Your task to perform on an android device: Show me popular videos on Youtube Image 0: 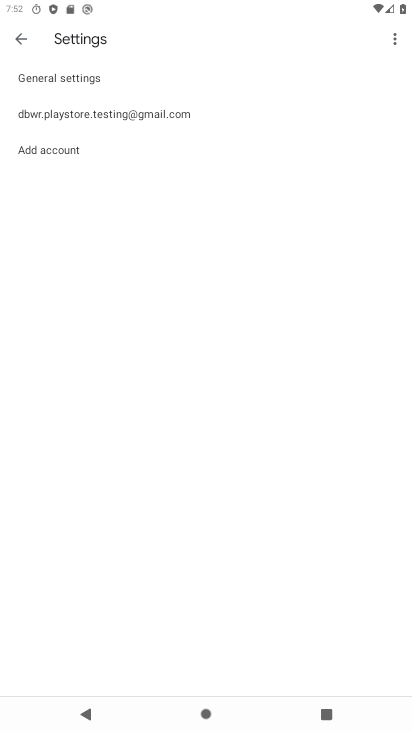
Step 0: press home button
Your task to perform on an android device: Show me popular videos on Youtube Image 1: 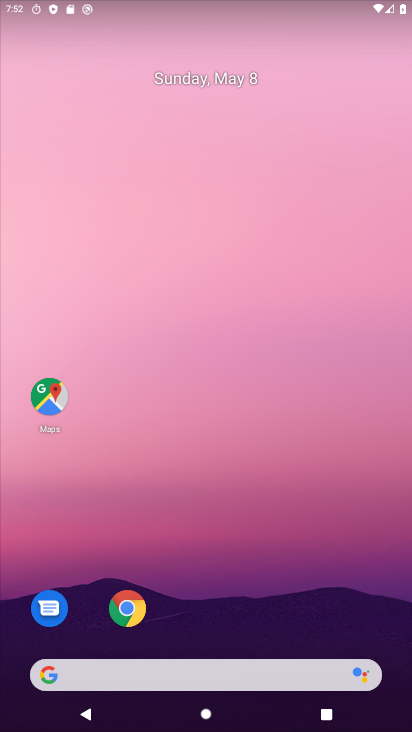
Step 1: drag from (318, 588) to (353, 131)
Your task to perform on an android device: Show me popular videos on Youtube Image 2: 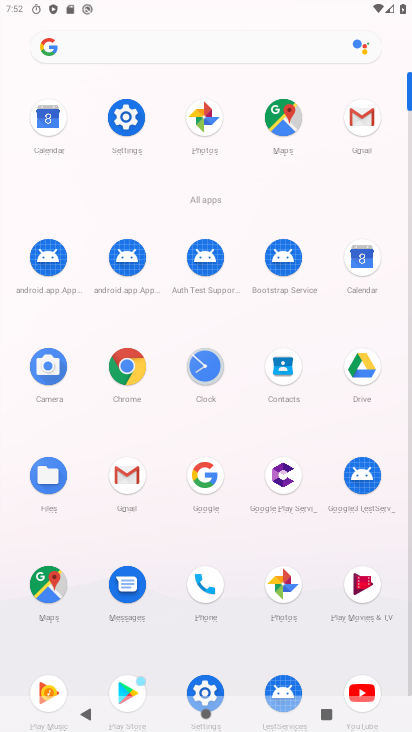
Step 2: click (363, 691)
Your task to perform on an android device: Show me popular videos on Youtube Image 3: 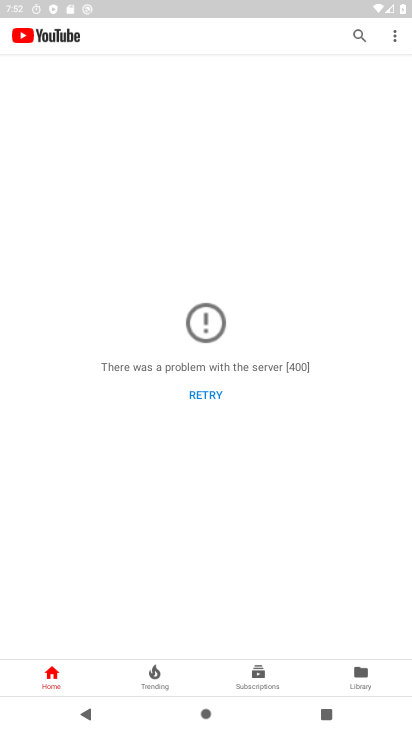
Step 3: drag from (353, 680) to (158, 683)
Your task to perform on an android device: Show me popular videos on Youtube Image 4: 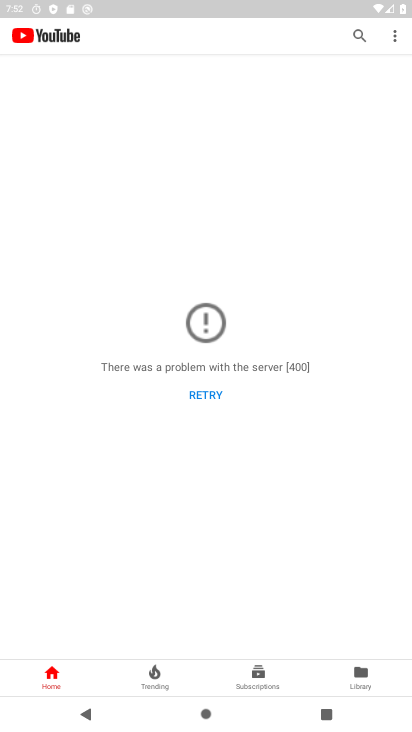
Step 4: click (158, 683)
Your task to perform on an android device: Show me popular videos on Youtube Image 5: 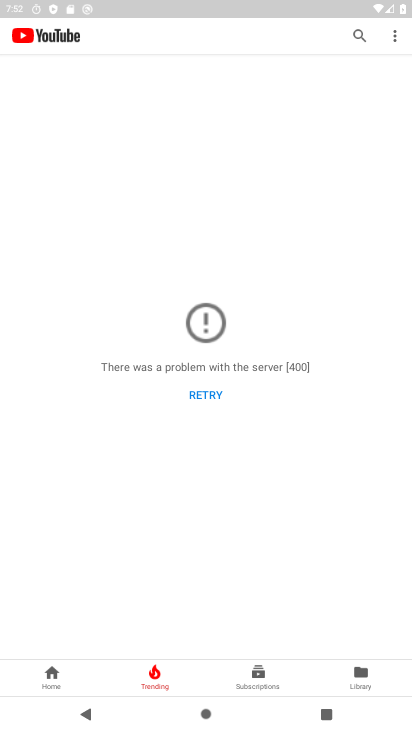
Step 5: click (158, 688)
Your task to perform on an android device: Show me popular videos on Youtube Image 6: 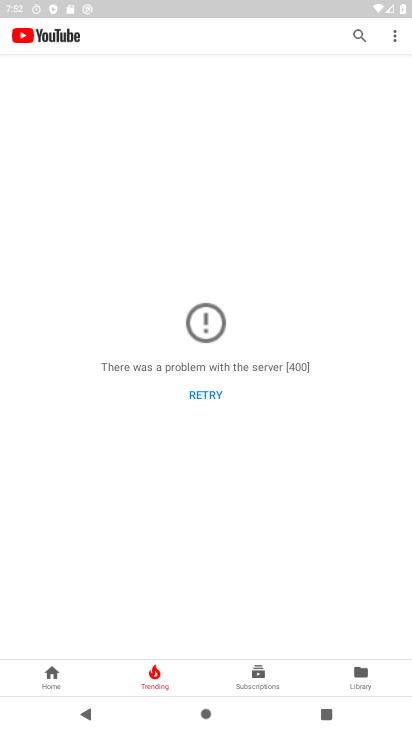
Step 6: task complete